Your task to perform on an android device: Open notification settings Image 0: 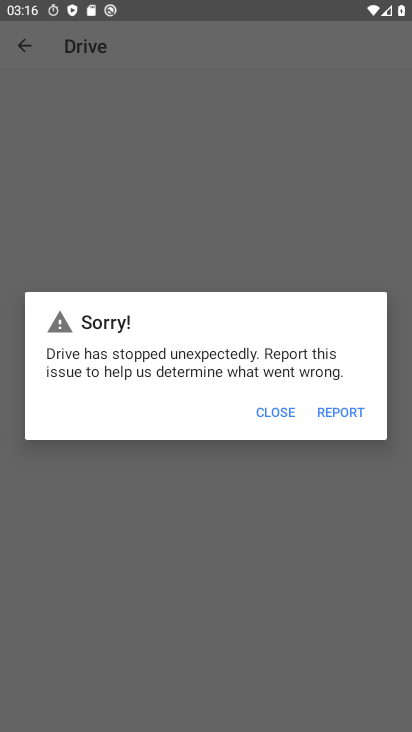
Step 0: press home button
Your task to perform on an android device: Open notification settings Image 1: 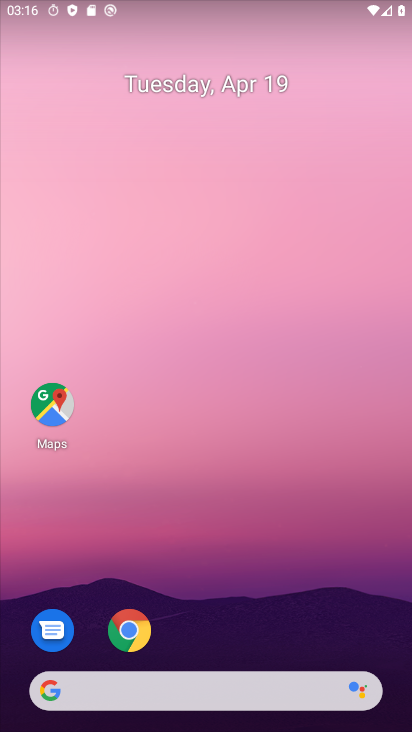
Step 1: drag from (258, 623) to (277, 131)
Your task to perform on an android device: Open notification settings Image 2: 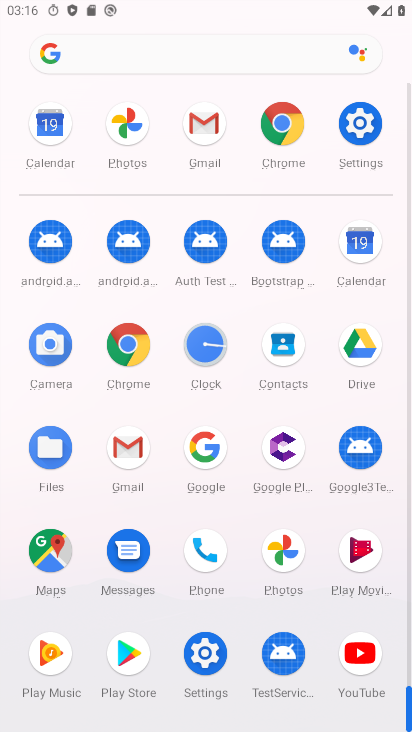
Step 2: click (353, 128)
Your task to perform on an android device: Open notification settings Image 3: 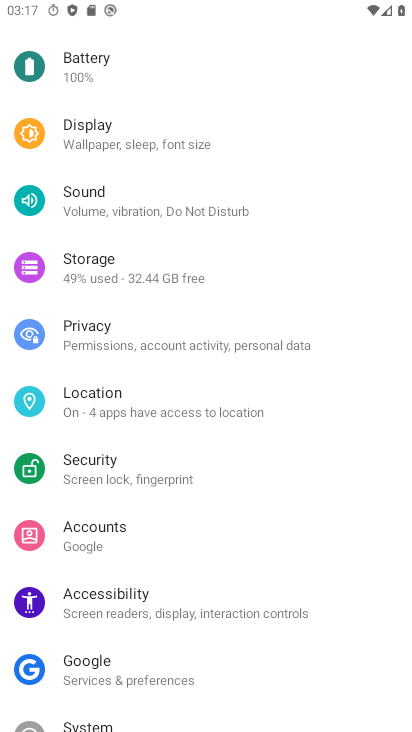
Step 3: drag from (247, 258) to (248, 528)
Your task to perform on an android device: Open notification settings Image 4: 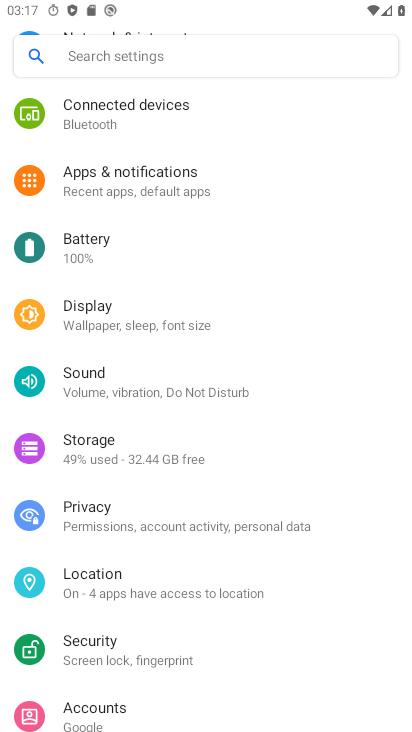
Step 4: click (177, 187)
Your task to perform on an android device: Open notification settings Image 5: 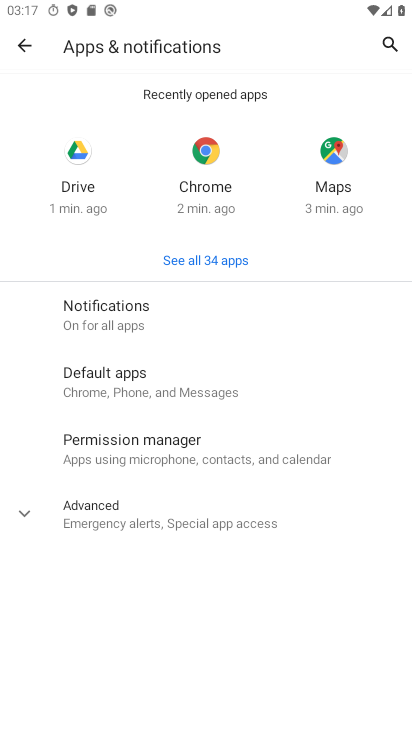
Step 5: task complete